Your task to perform on an android device: turn notification dots off Image 0: 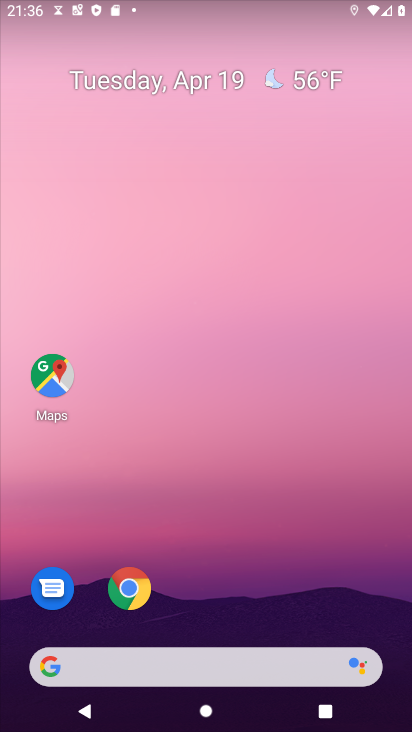
Step 0: drag from (205, 594) to (216, 107)
Your task to perform on an android device: turn notification dots off Image 1: 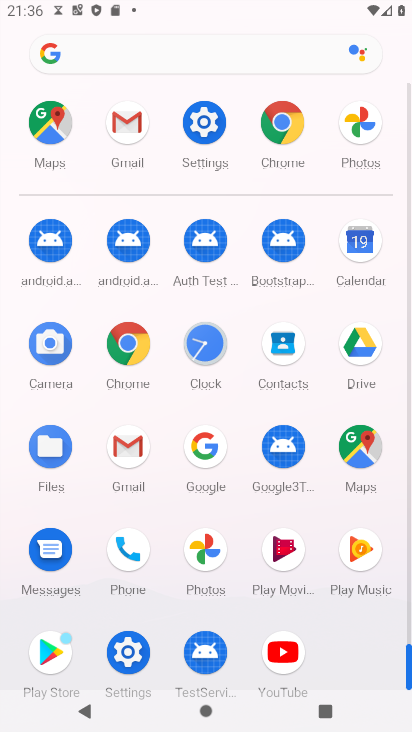
Step 1: click (130, 655)
Your task to perform on an android device: turn notification dots off Image 2: 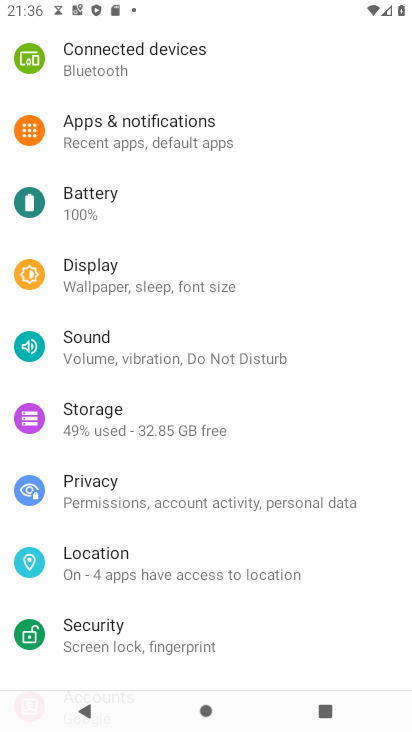
Step 2: click (167, 132)
Your task to perform on an android device: turn notification dots off Image 3: 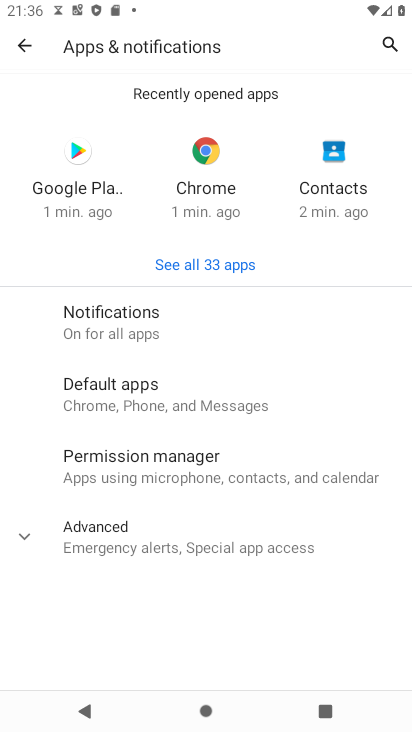
Step 3: click (127, 331)
Your task to perform on an android device: turn notification dots off Image 4: 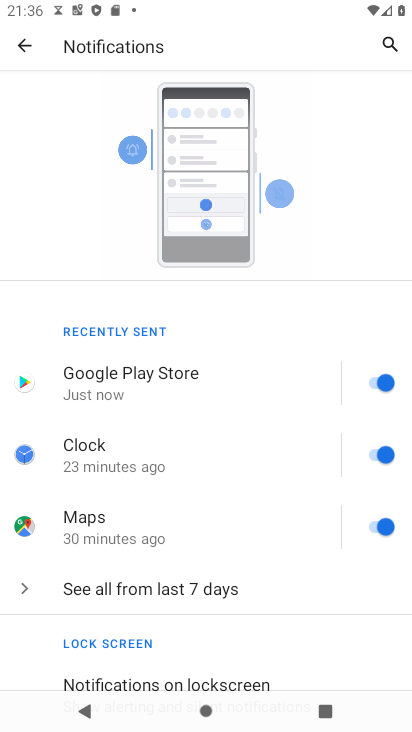
Step 4: drag from (170, 627) to (233, 406)
Your task to perform on an android device: turn notification dots off Image 5: 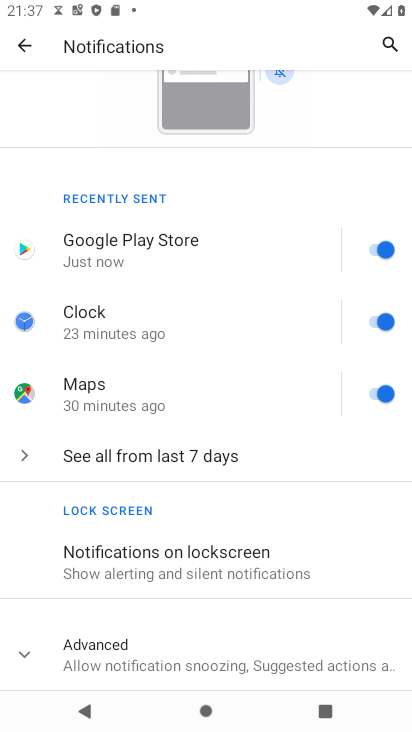
Step 5: click (199, 670)
Your task to perform on an android device: turn notification dots off Image 6: 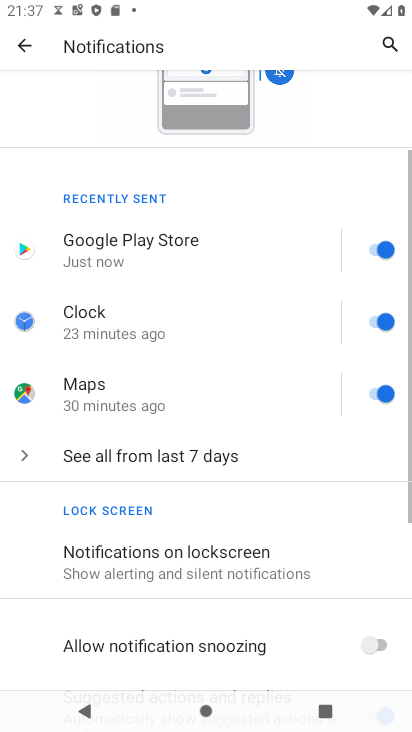
Step 6: drag from (201, 620) to (274, 370)
Your task to perform on an android device: turn notification dots off Image 7: 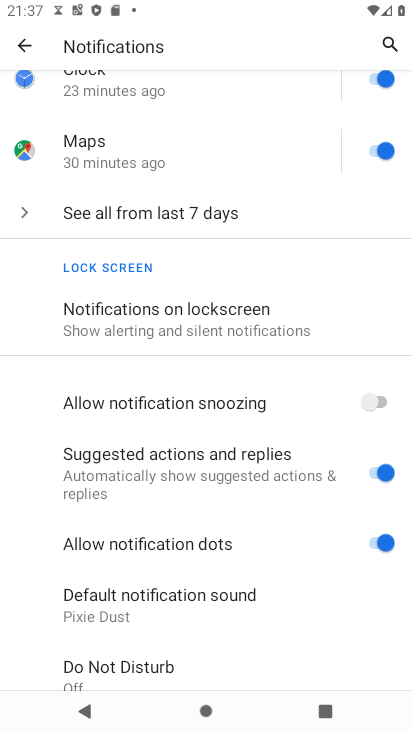
Step 7: click (380, 544)
Your task to perform on an android device: turn notification dots off Image 8: 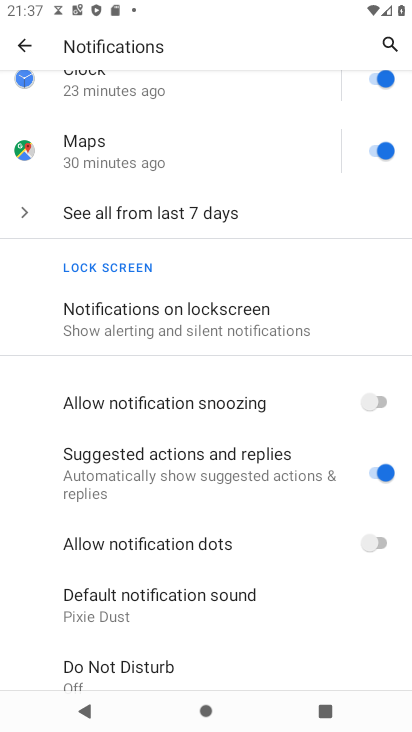
Step 8: task complete